Your task to perform on an android device: install app "Google Sheets" Image 0: 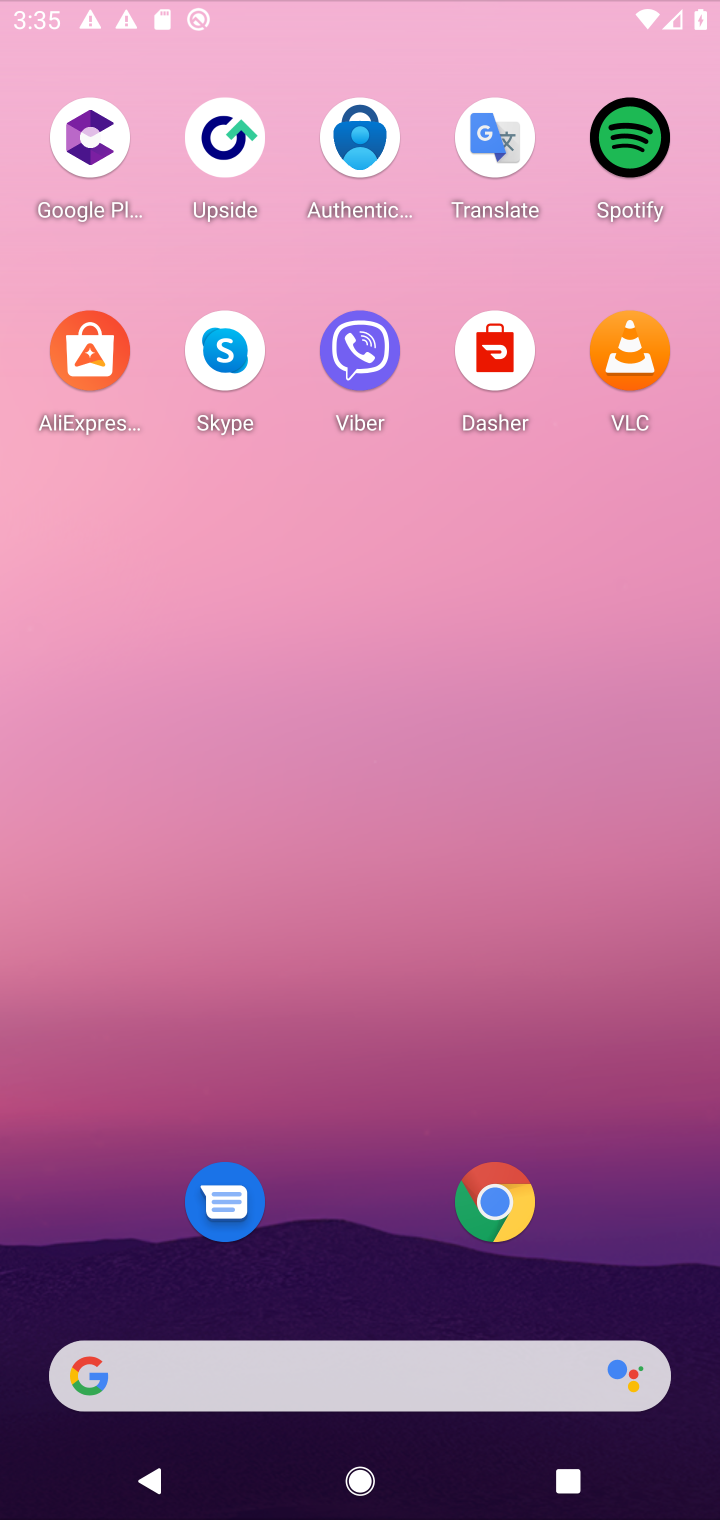
Step 0: press home button
Your task to perform on an android device: install app "Google Sheets" Image 1: 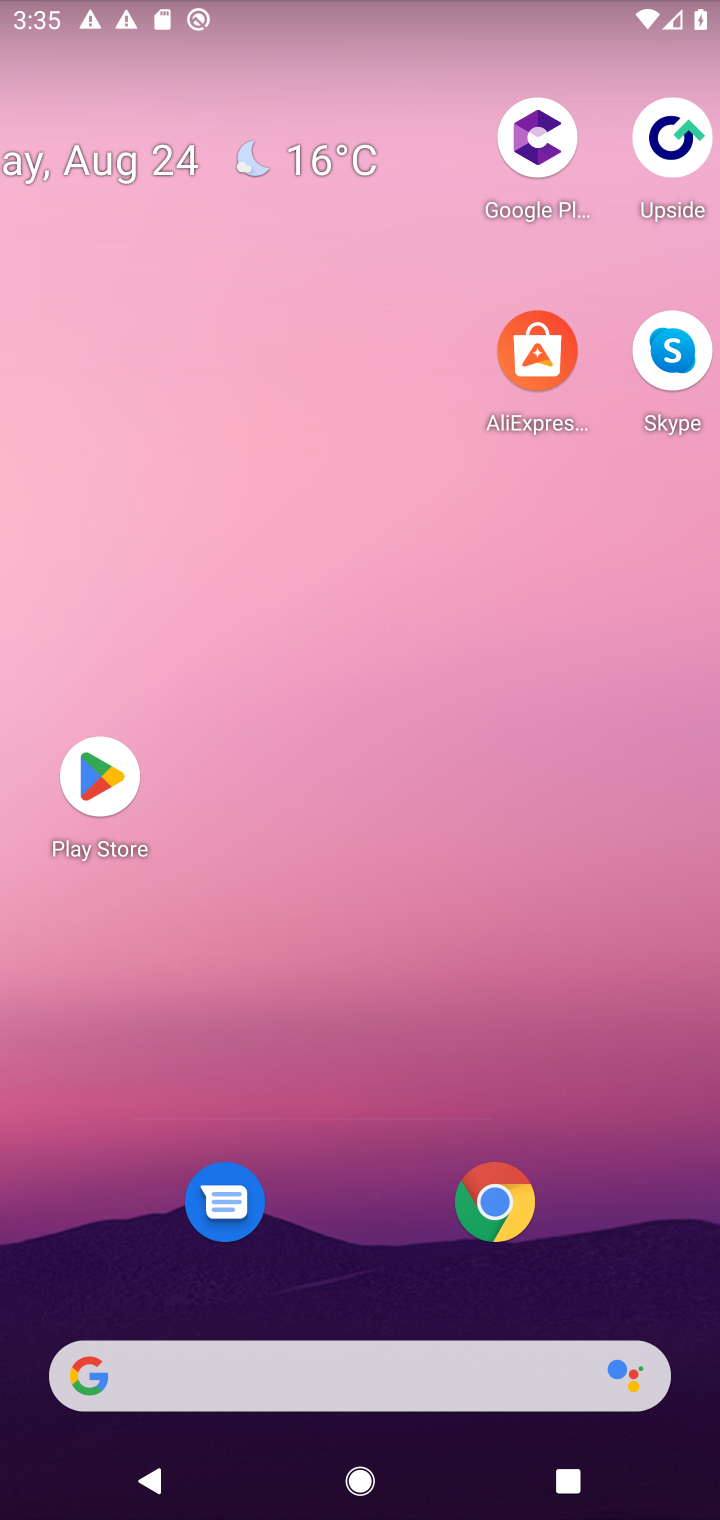
Step 1: press home button
Your task to perform on an android device: install app "Google Sheets" Image 2: 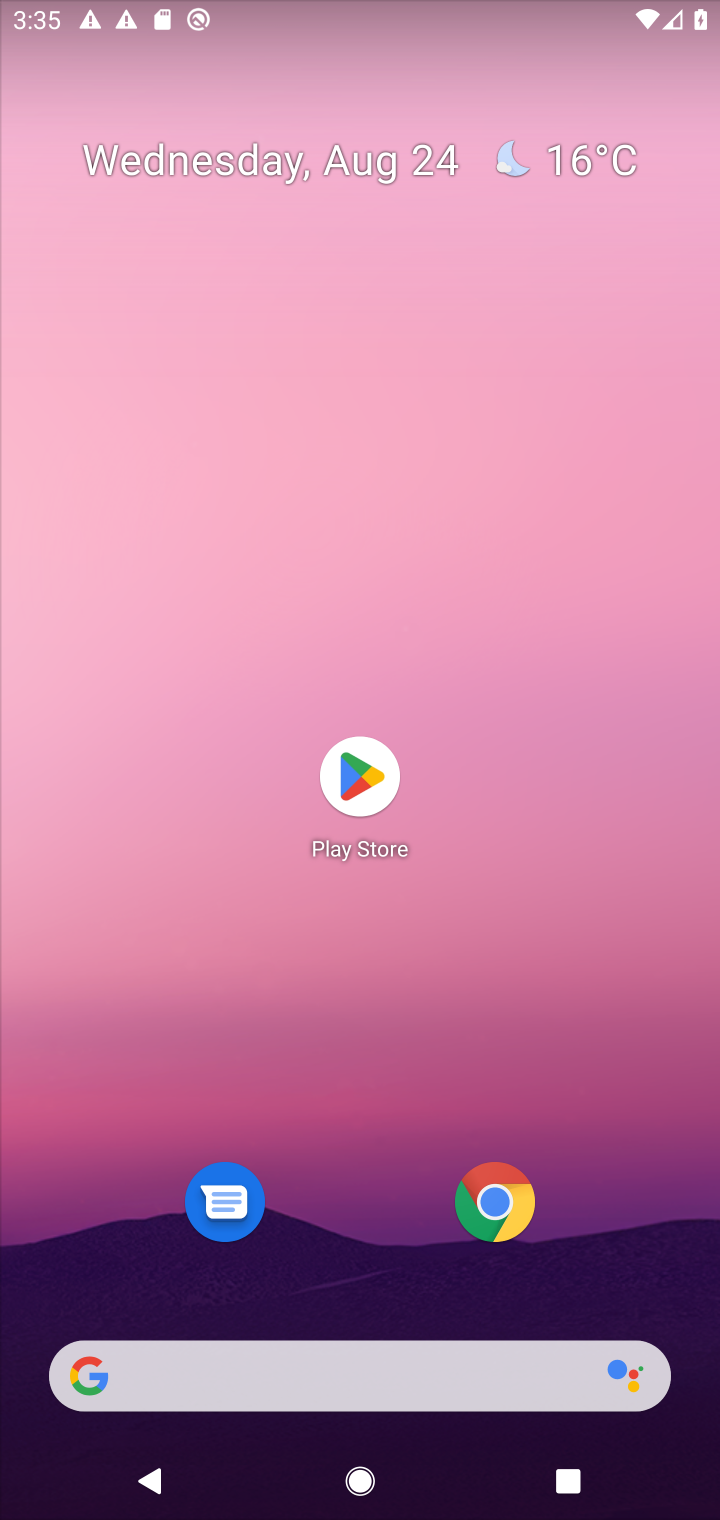
Step 2: click (356, 782)
Your task to perform on an android device: install app "Google Sheets" Image 3: 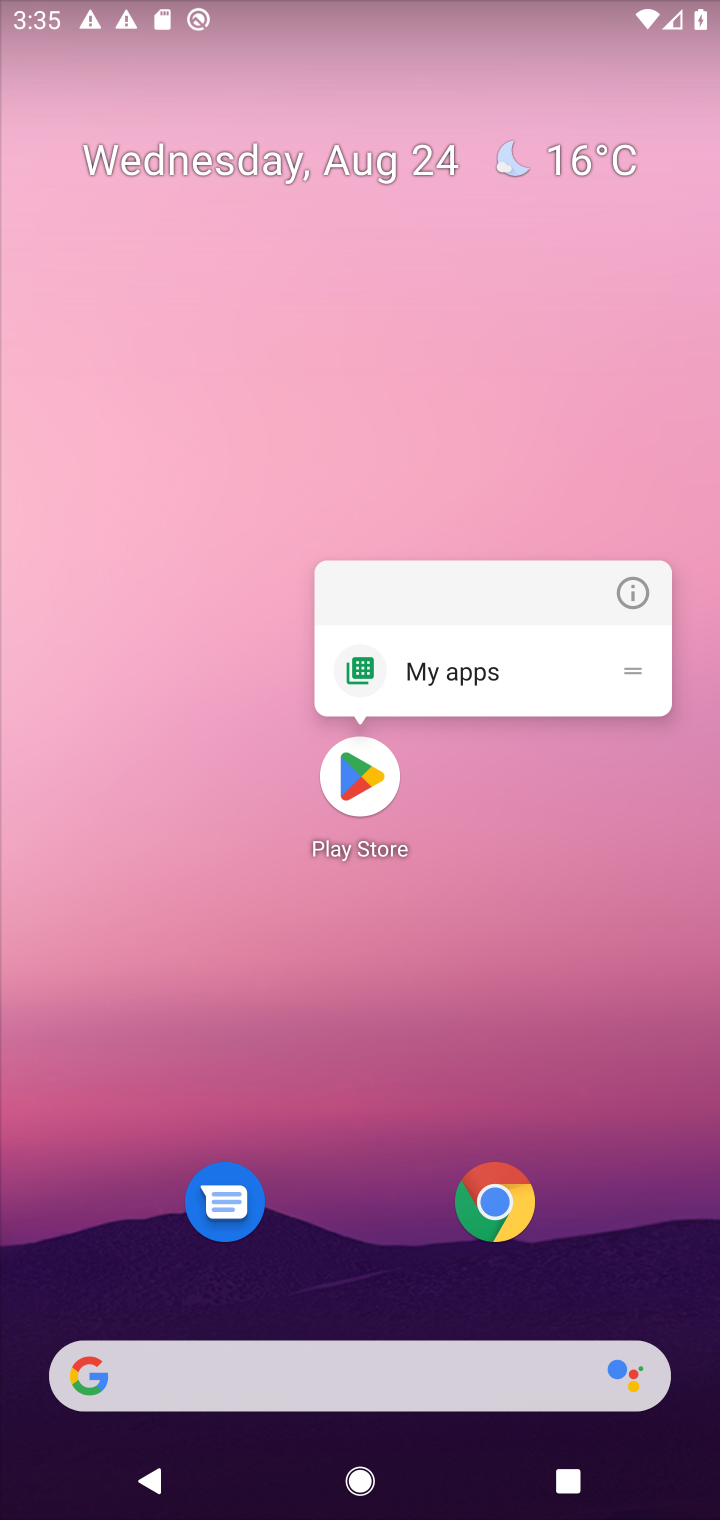
Step 3: click (356, 789)
Your task to perform on an android device: install app "Google Sheets" Image 4: 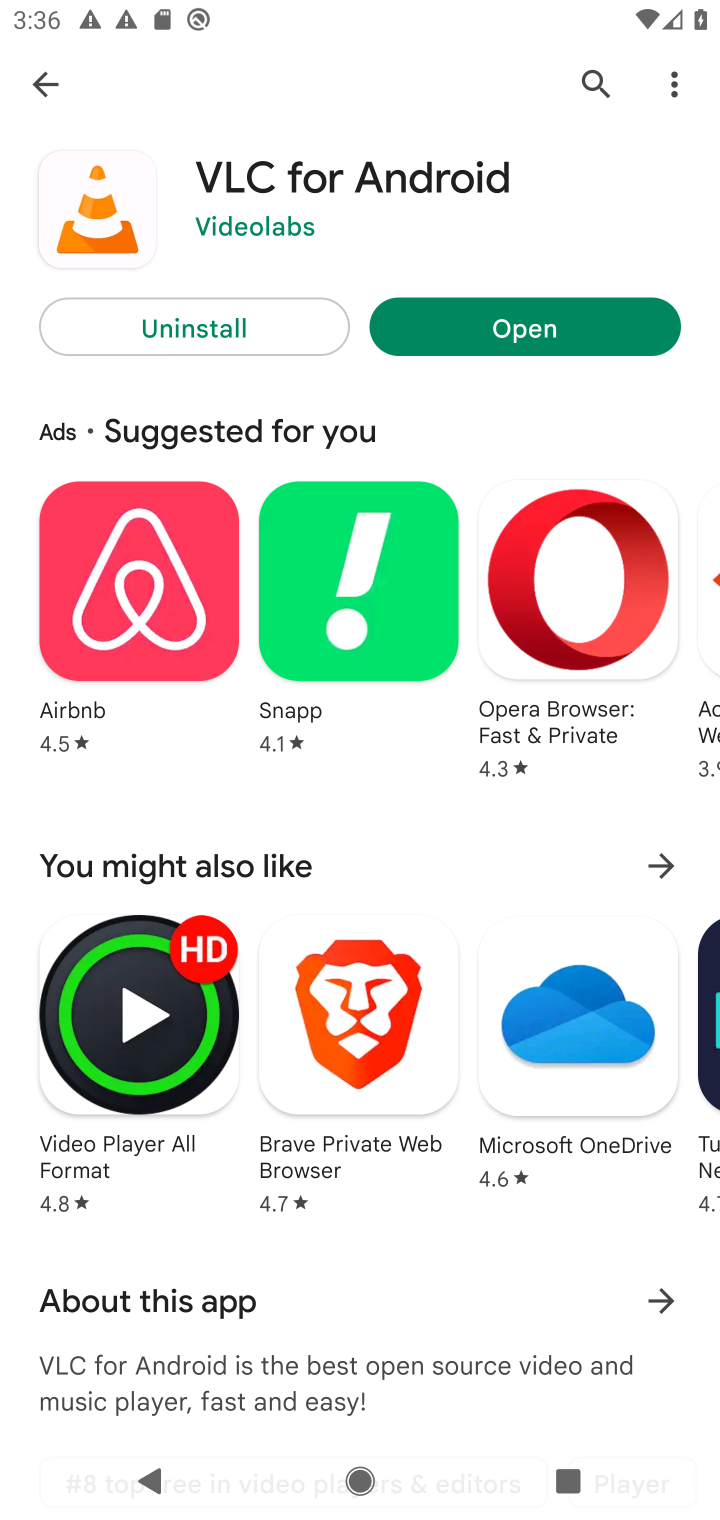
Step 4: click (586, 66)
Your task to perform on an android device: install app "Google Sheets" Image 5: 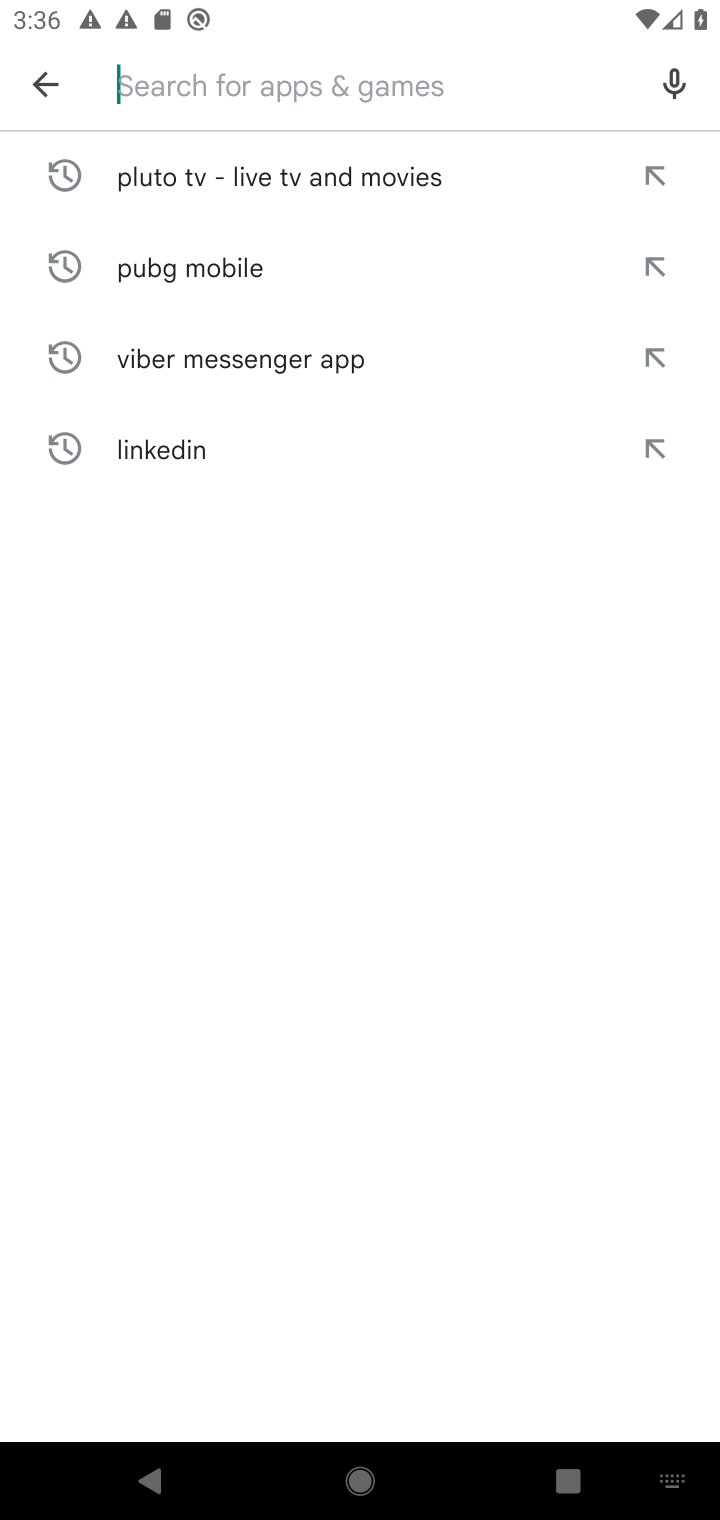
Step 5: type "Google Sheets"
Your task to perform on an android device: install app "Google Sheets" Image 6: 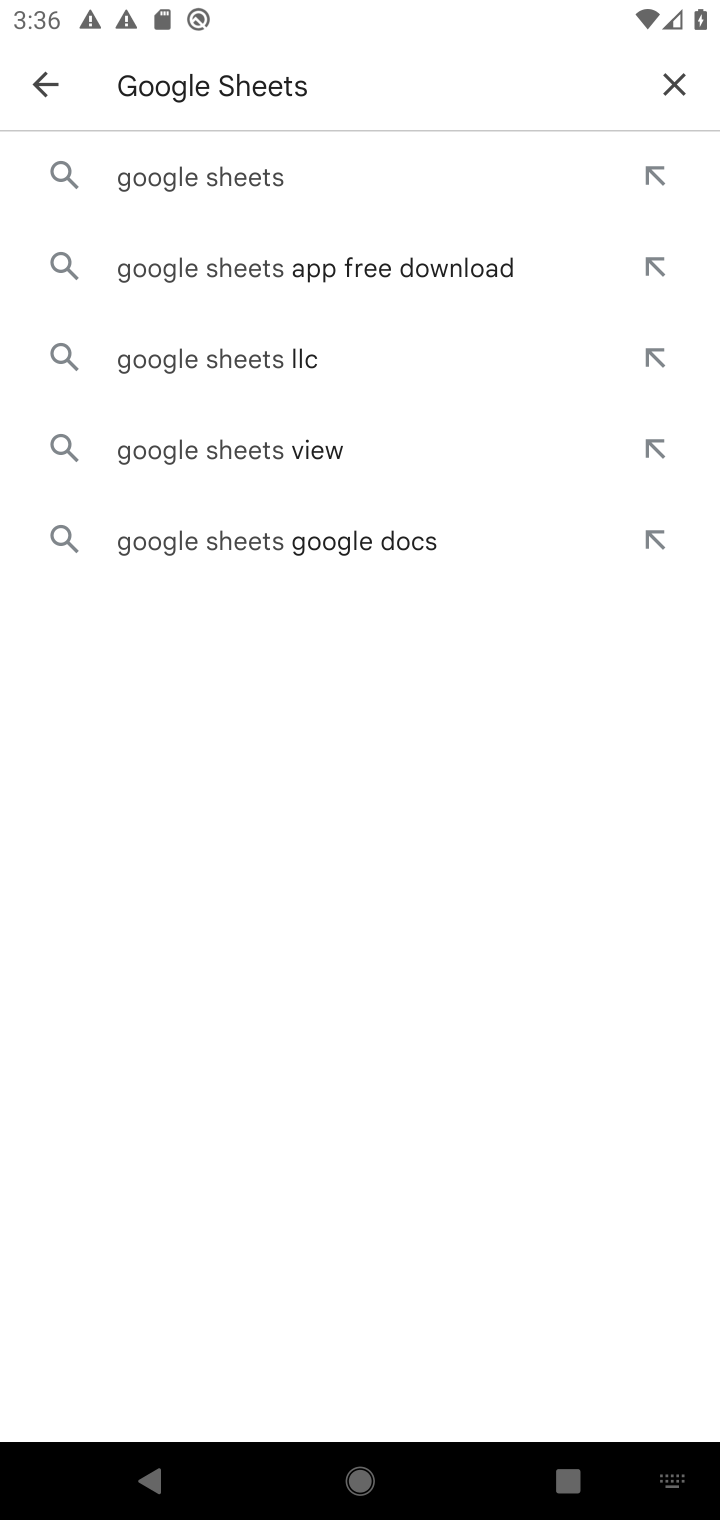
Step 6: click (276, 161)
Your task to perform on an android device: install app "Google Sheets" Image 7: 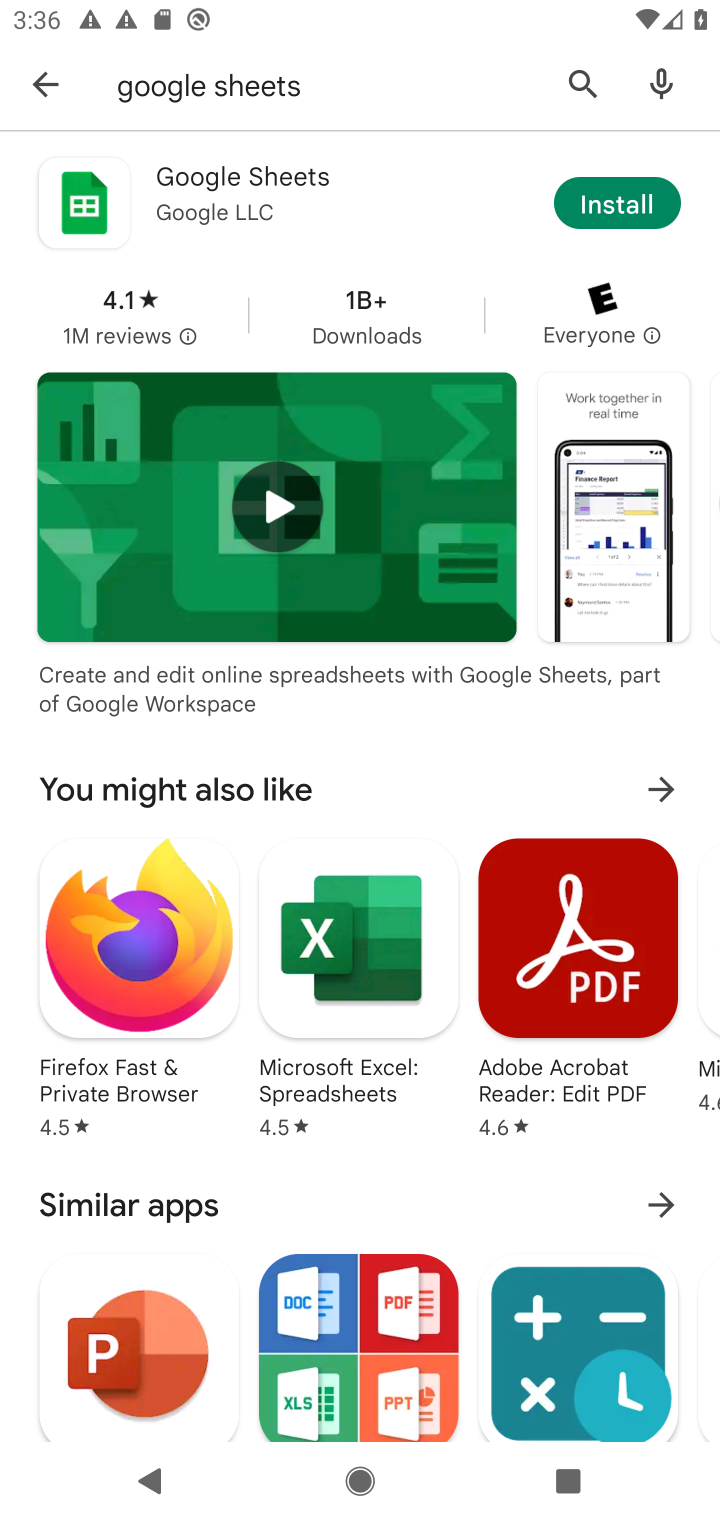
Step 7: click (648, 196)
Your task to perform on an android device: install app "Google Sheets" Image 8: 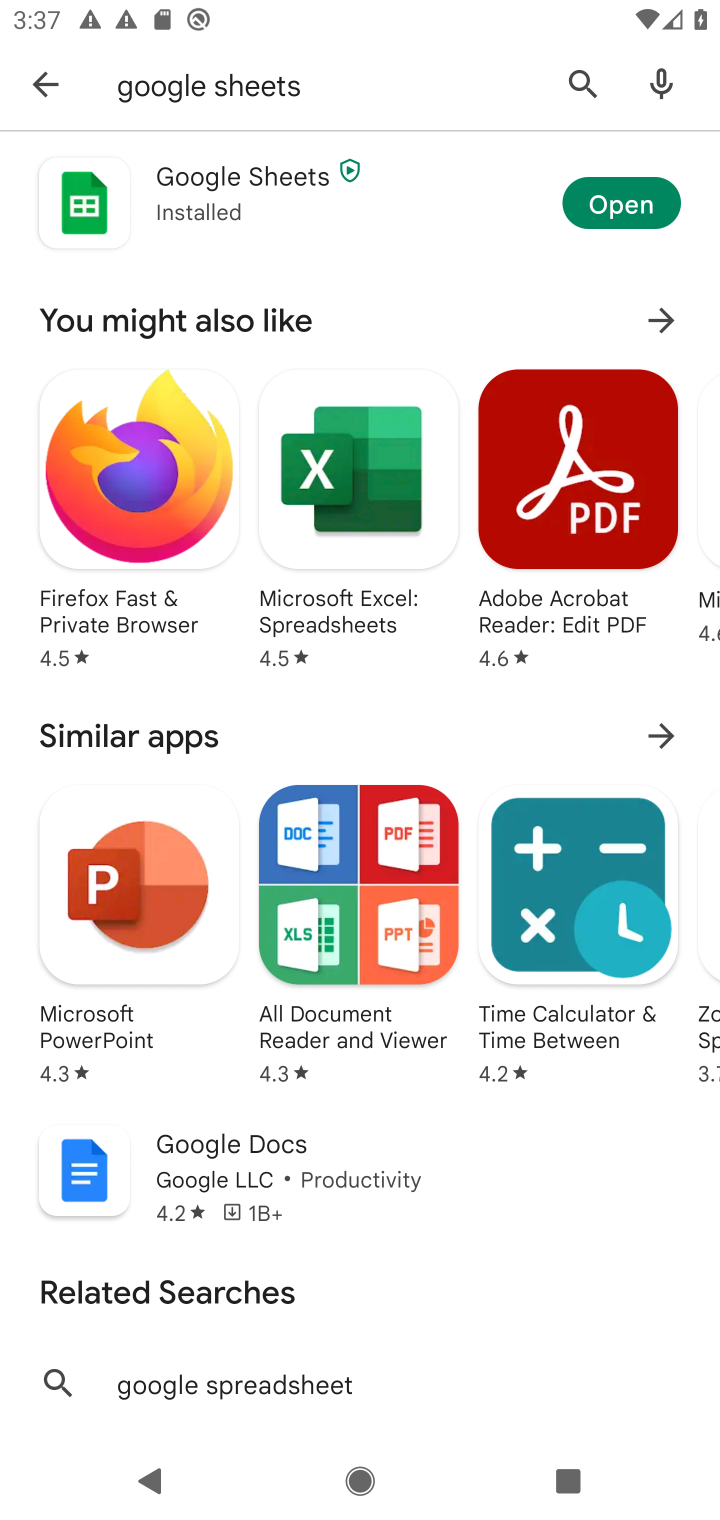
Step 8: task complete